Your task to perform on an android device: delete browsing data in the chrome app Image 0: 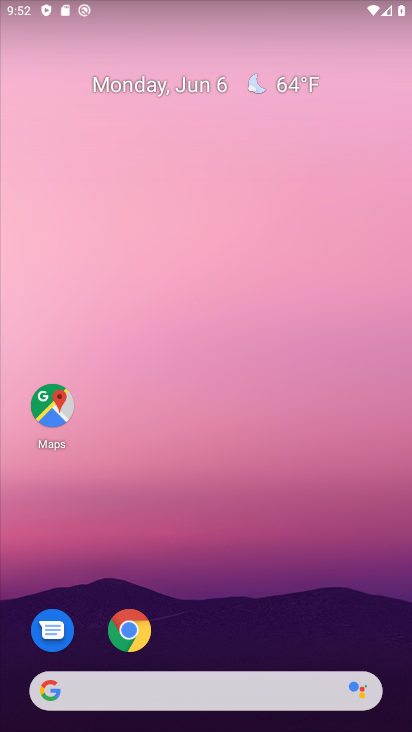
Step 0: click (123, 629)
Your task to perform on an android device: delete browsing data in the chrome app Image 1: 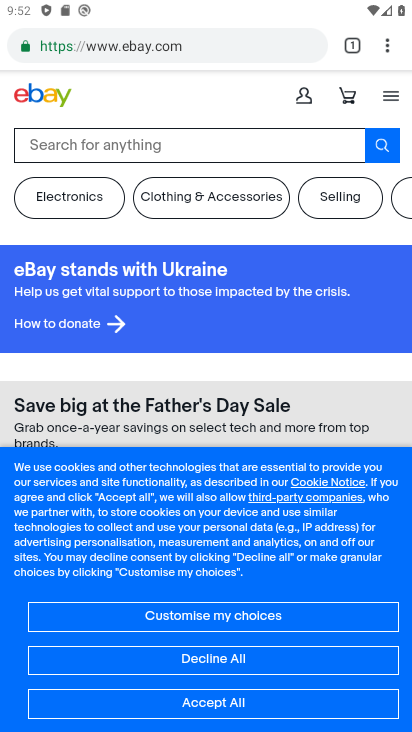
Step 1: click (401, 40)
Your task to perform on an android device: delete browsing data in the chrome app Image 2: 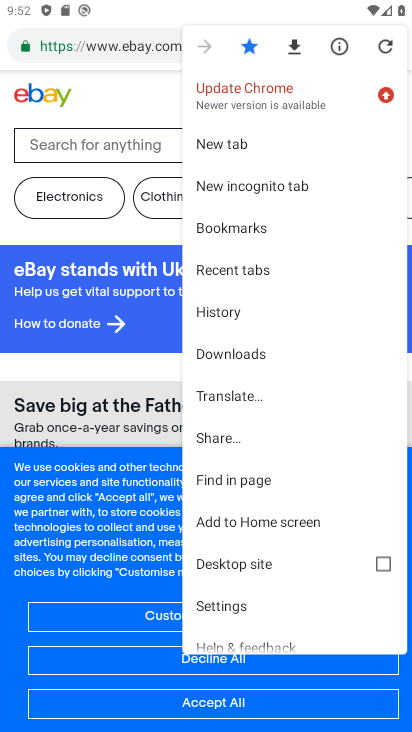
Step 2: click (247, 605)
Your task to perform on an android device: delete browsing data in the chrome app Image 3: 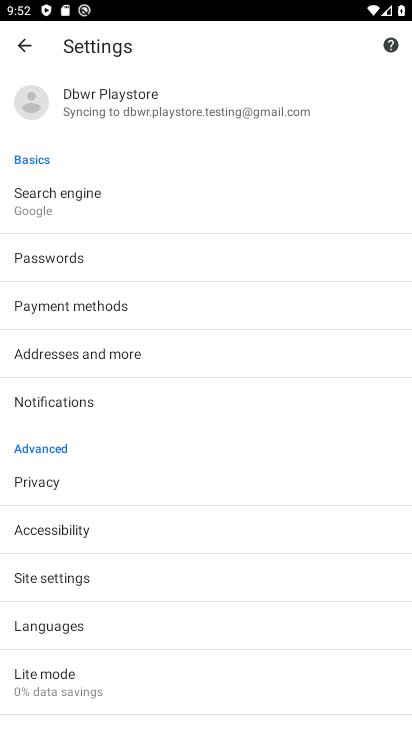
Step 3: click (54, 487)
Your task to perform on an android device: delete browsing data in the chrome app Image 4: 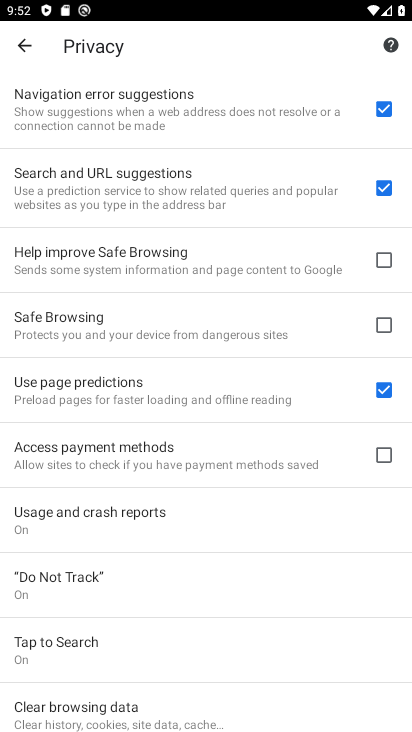
Step 4: click (119, 710)
Your task to perform on an android device: delete browsing data in the chrome app Image 5: 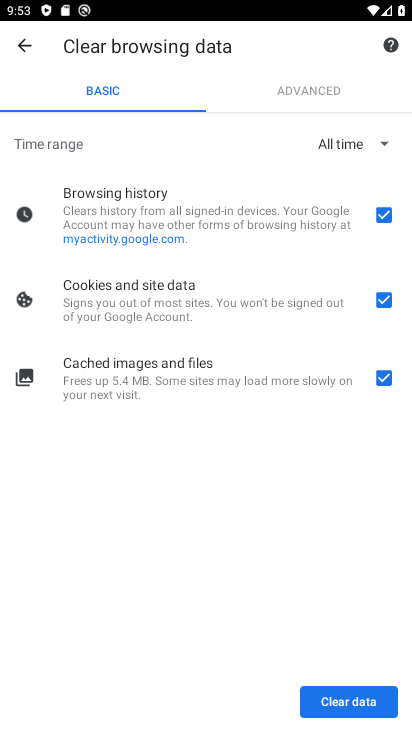
Step 5: click (380, 373)
Your task to perform on an android device: delete browsing data in the chrome app Image 6: 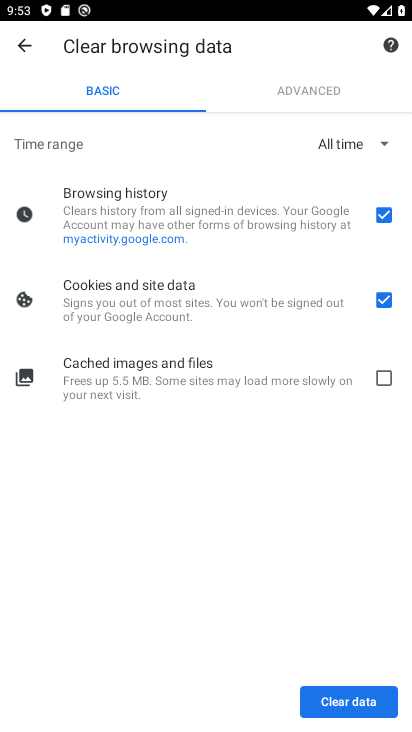
Step 6: click (374, 300)
Your task to perform on an android device: delete browsing data in the chrome app Image 7: 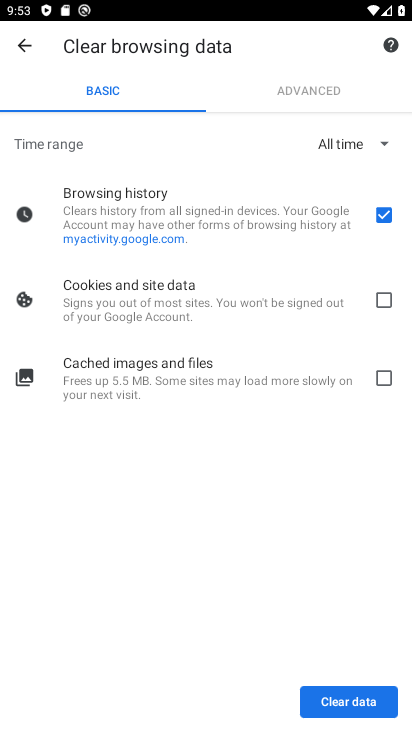
Step 7: click (343, 709)
Your task to perform on an android device: delete browsing data in the chrome app Image 8: 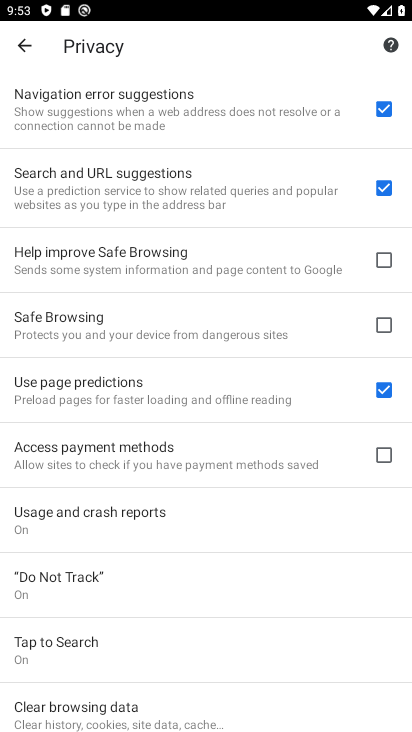
Step 8: task complete